Your task to perform on an android device: Open Amazon Image 0: 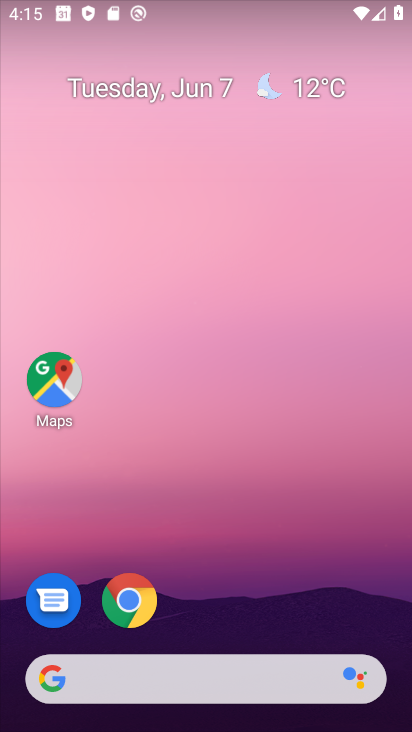
Step 0: drag from (173, 574) to (221, 242)
Your task to perform on an android device: Open Amazon Image 1: 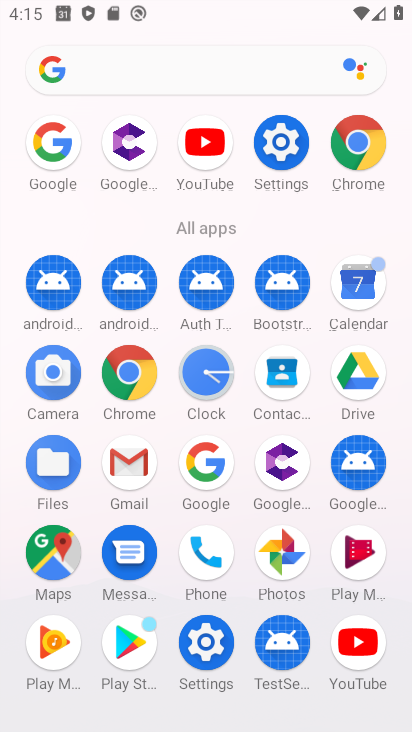
Step 1: click (213, 460)
Your task to perform on an android device: Open Amazon Image 2: 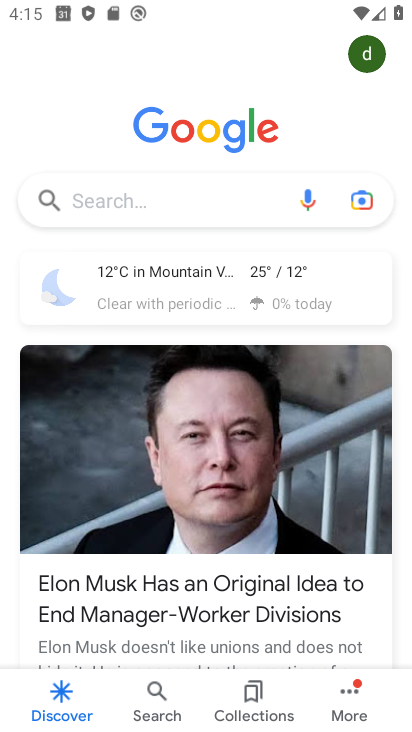
Step 2: click (102, 206)
Your task to perform on an android device: Open Amazon Image 3: 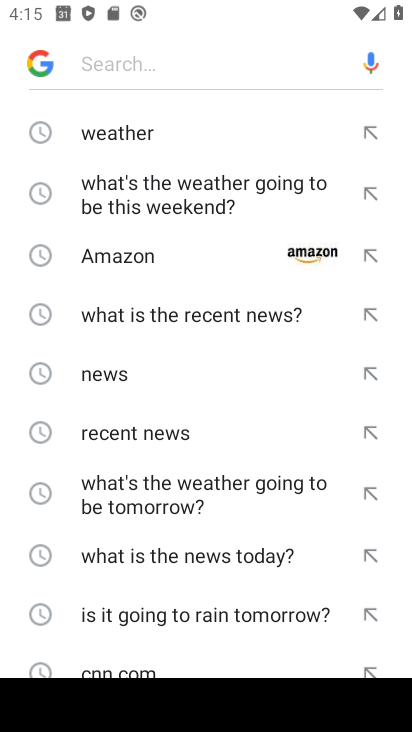
Step 3: click (132, 254)
Your task to perform on an android device: Open Amazon Image 4: 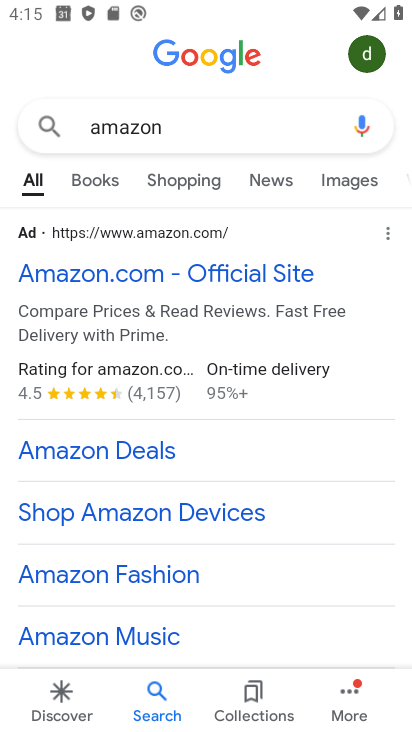
Step 4: task complete